Your task to perform on an android device: check storage Image 0: 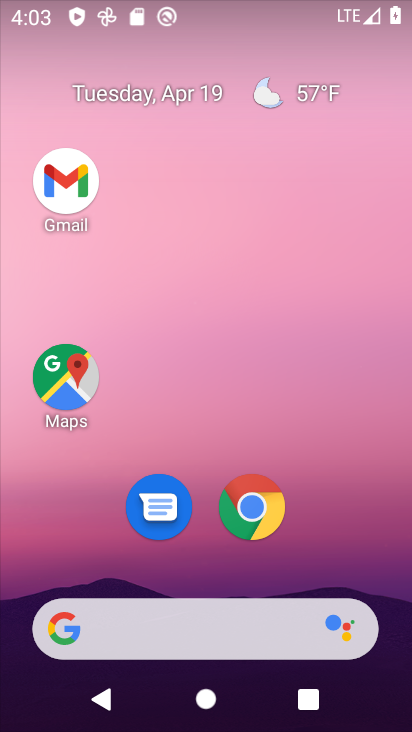
Step 0: drag from (174, 575) to (258, 81)
Your task to perform on an android device: check storage Image 1: 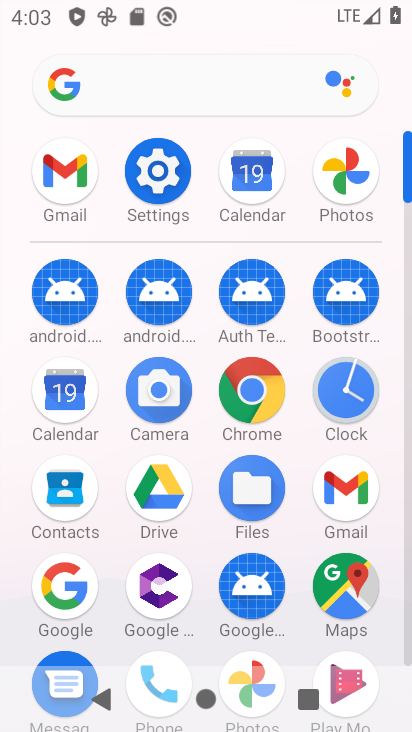
Step 1: click (149, 178)
Your task to perform on an android device: check storage Image 2: 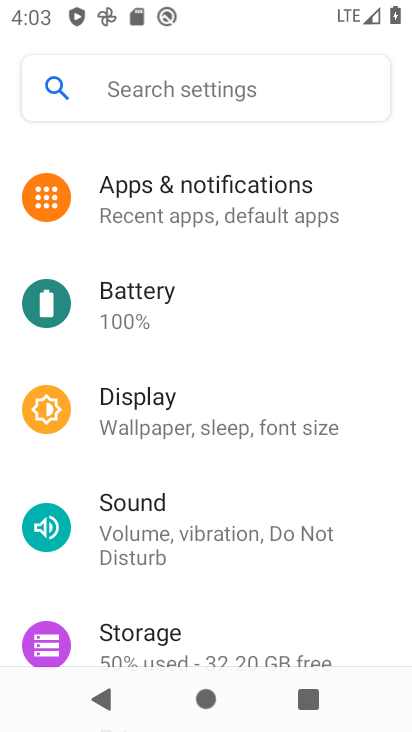
Step 2: click (220, 627)
Your task to perform on an android device: check storage Image 3: 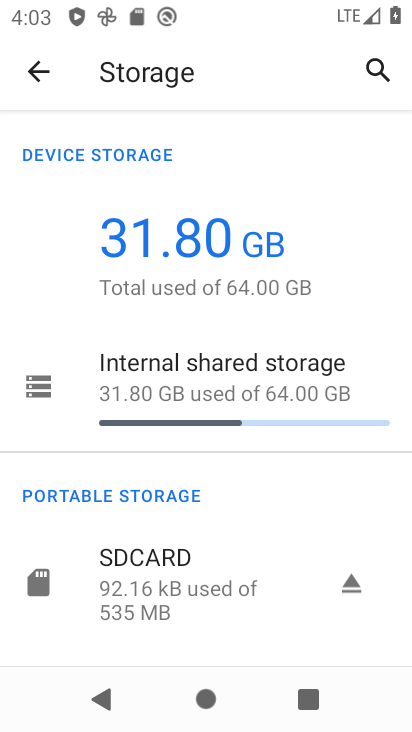
Step 3: task complete